Your task to perform on an android device: toggle airplane mode Image 0: 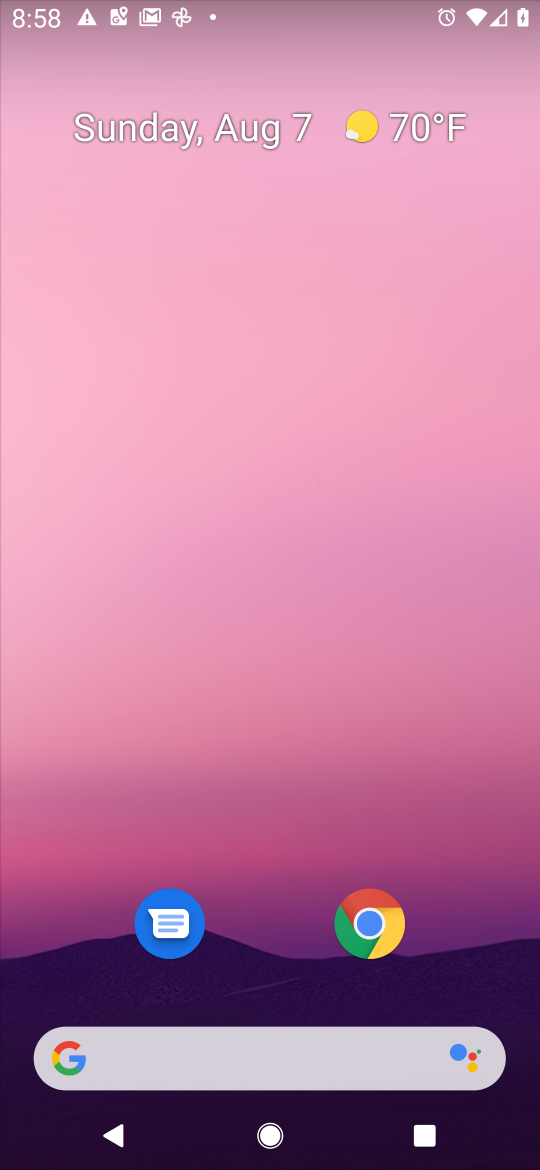
Step 0: drag from (475, 972) to (255, 25)
Your task to perform on an android device: toggle airplane mode Image 1: 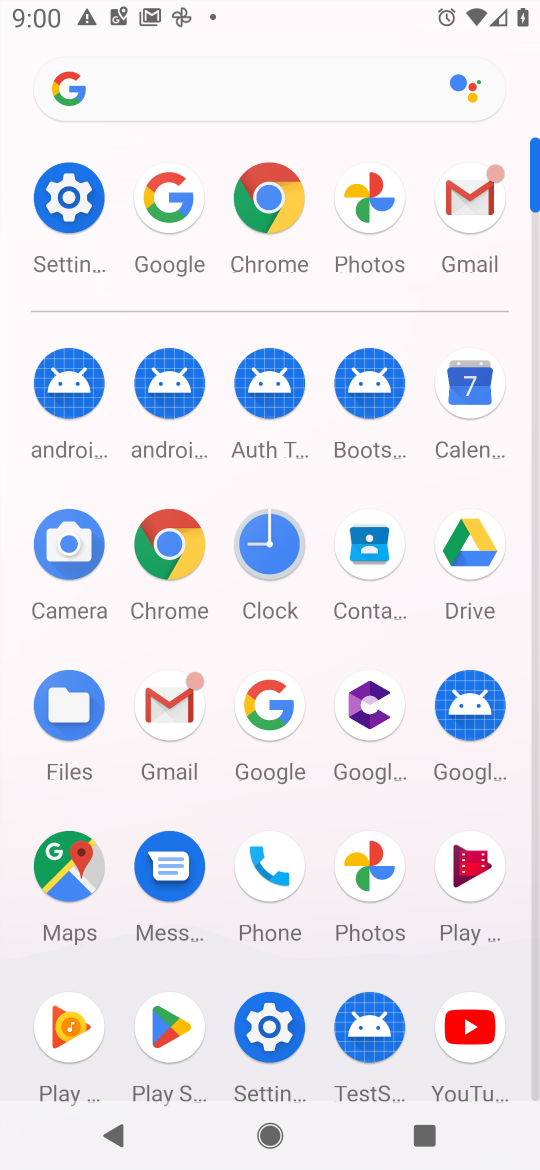
Step 1: drag from (279, 9) to (327, 1020)
Your task to perform on an android device: toggle airplane mode Image 2: 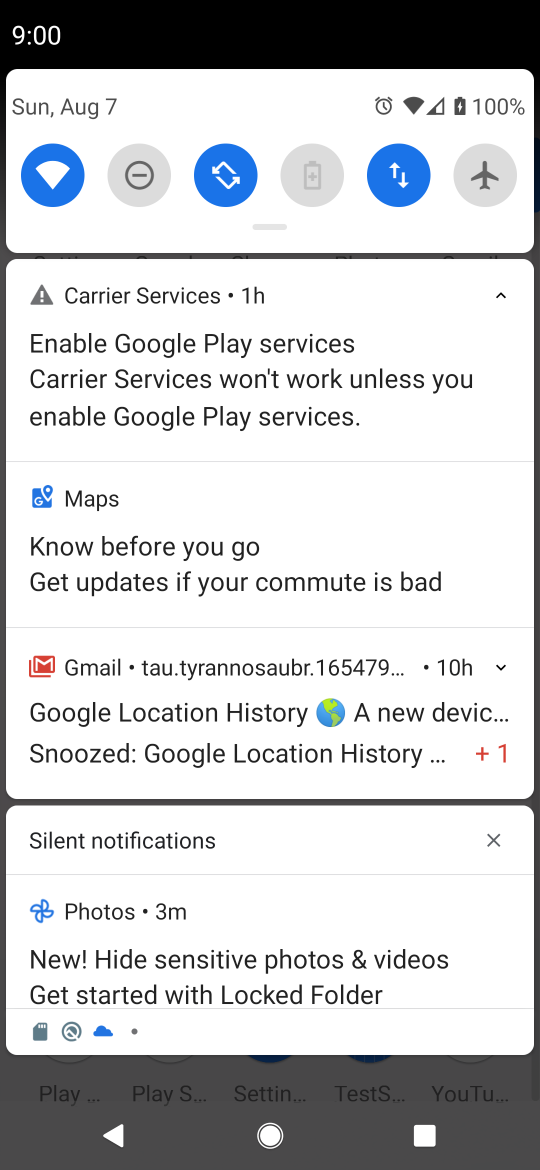
Step 2: drag from (464, 213) to (313, 1101)
Your task to perform on an android device: toggle airplane mode Image 3: 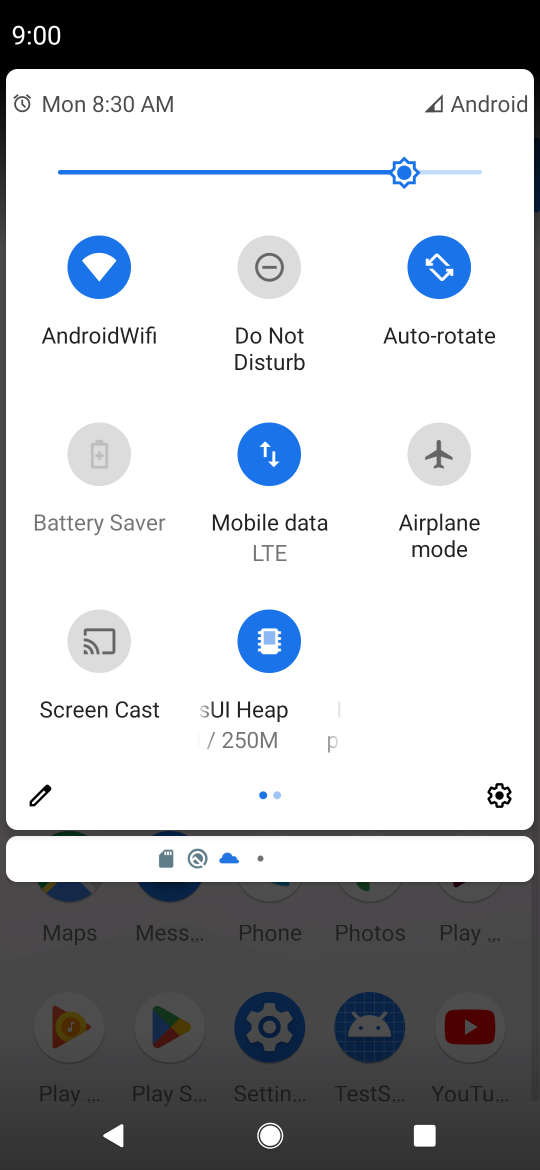
Step 3: click (438, 457)
Your task to perform on an android device: toggle airplane mode Image 4: 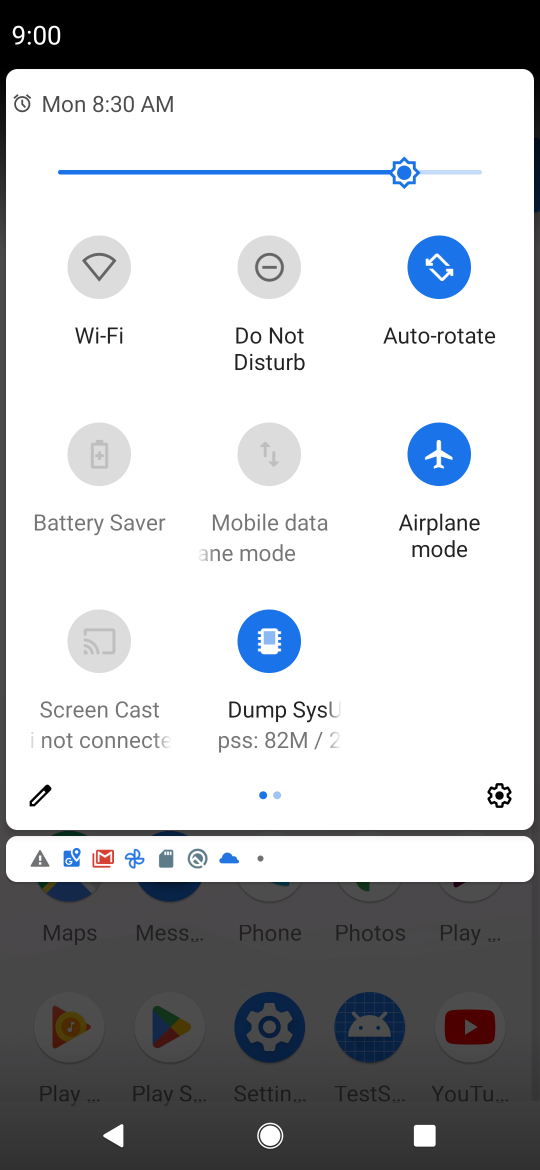
Step 4: task complete